Your task to perform on an android device: Do I have any events tomorrow? Image 0: 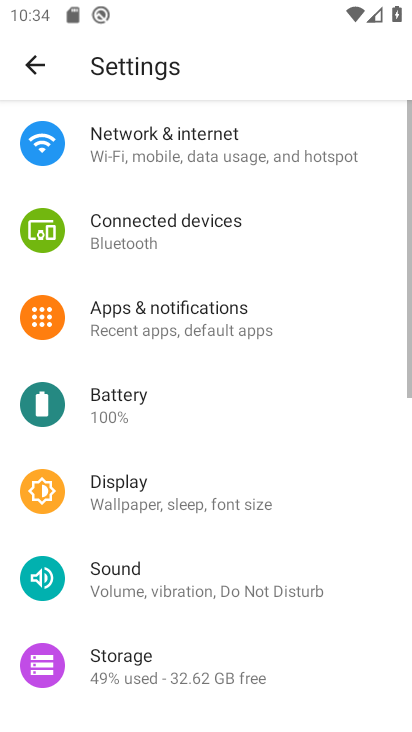
Step 0: press home button
Your task to perform on an android device: Do I have any events tomorrow? Image 1: 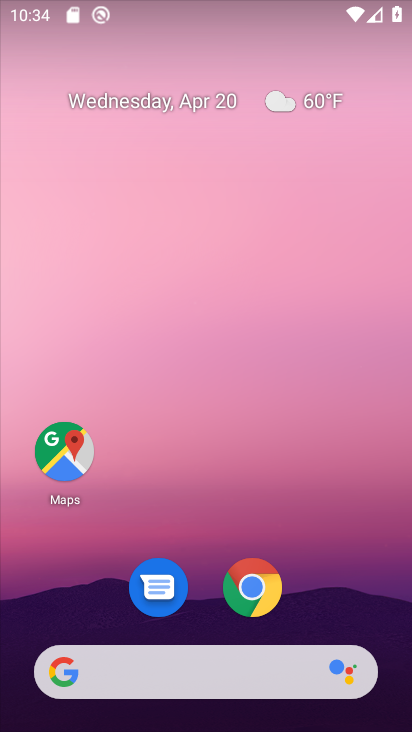
Step 1: drag from (205, 604) to (260, 76)
Your task to perform on an android device: Do I have any events tomorrow? Image 2: 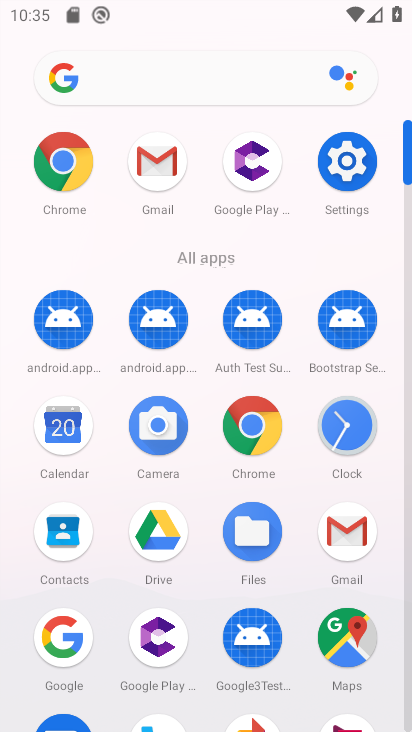
Step 2: click (61, 423)
Your task to perform on an android device: Do I have any events tomorrow? Image 3: 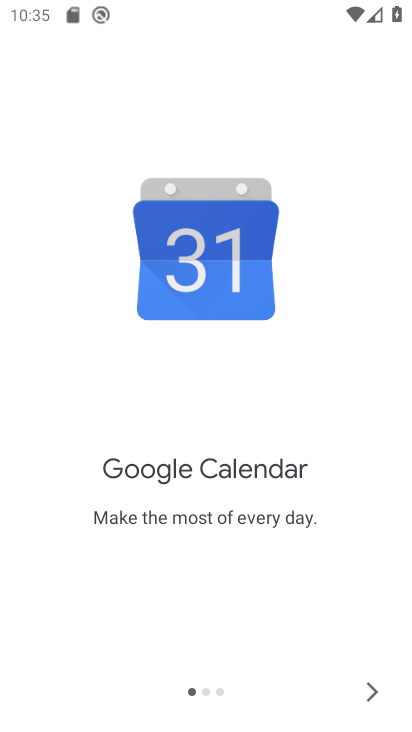
Step 3: click (363, 683)
Your task to perform on an android device: Do I have any events tomorrow? Image 4: 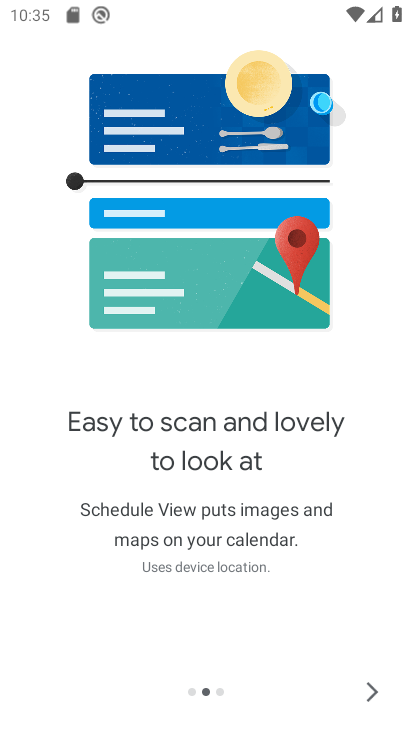
Step 4: click (363, 683)
Your task to perform on an android device: Do I have any events tomorrow? Image 5: 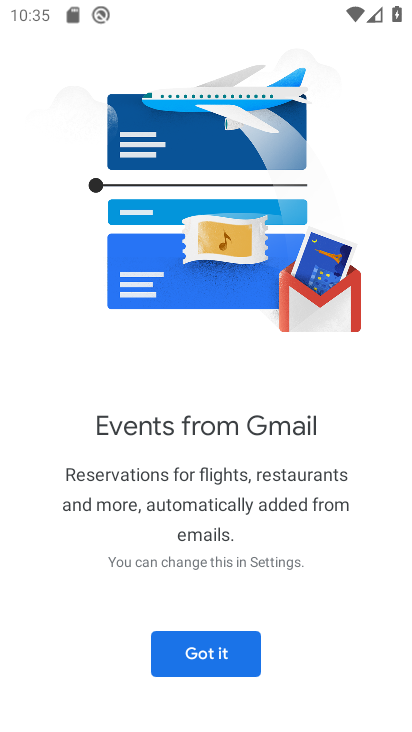
Step 5: click (205, 652)
Your task to perform on an android device: Do I have any events tomorrow? Image 6: 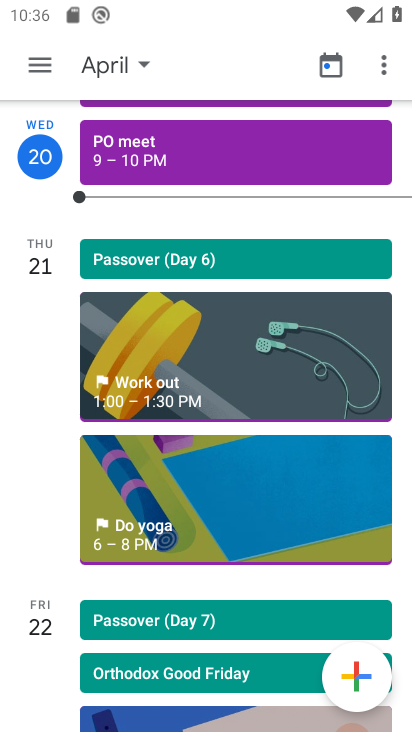
Step 6: click (34, 62)
Your task to perform on an android device: Do I have any events tomorrow? Image 7: 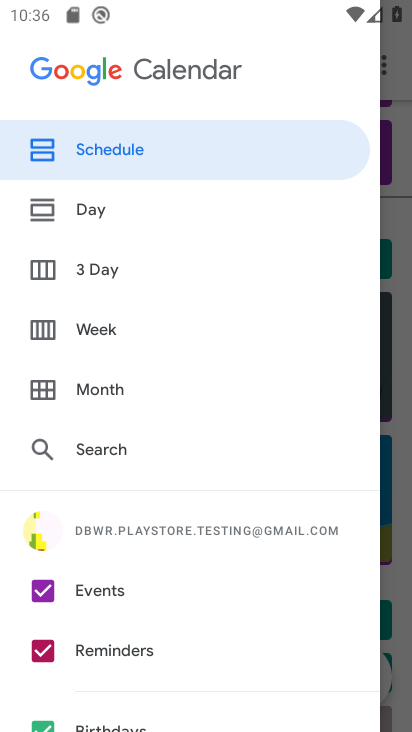
Step 7: click (40, 647)
Your task to perform on an android device: Do I have any events tomorrow? Image 8: 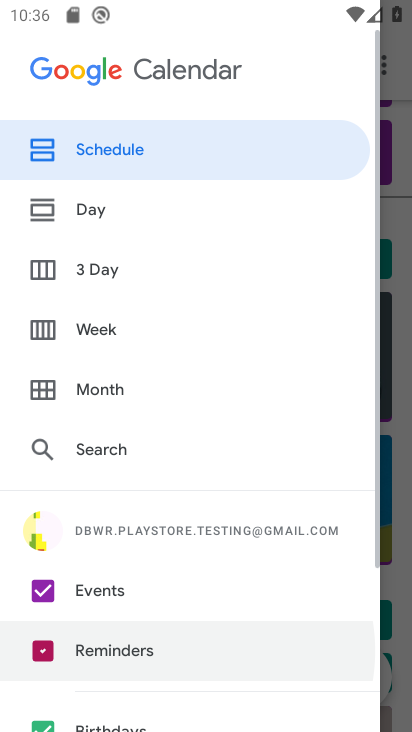
Step 8: drag from (130, 697) to (180, 374)
Your task to perform on an android device: Do I have any events tomorrow? Image 9: 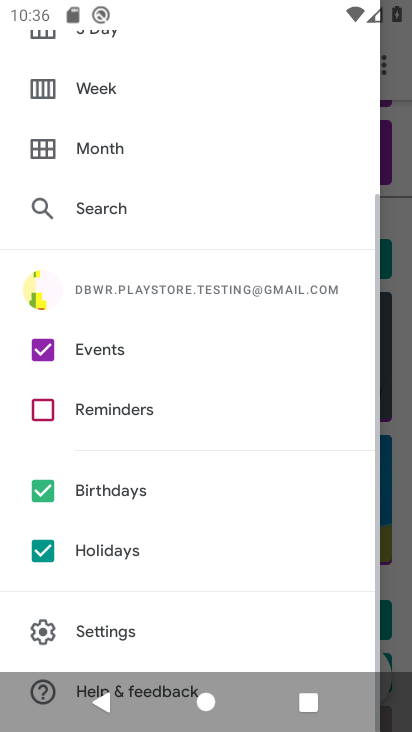
Step 9: click (44, 487)
Your task to perform on an android device: Do I have any events tomorrow? Image 10: 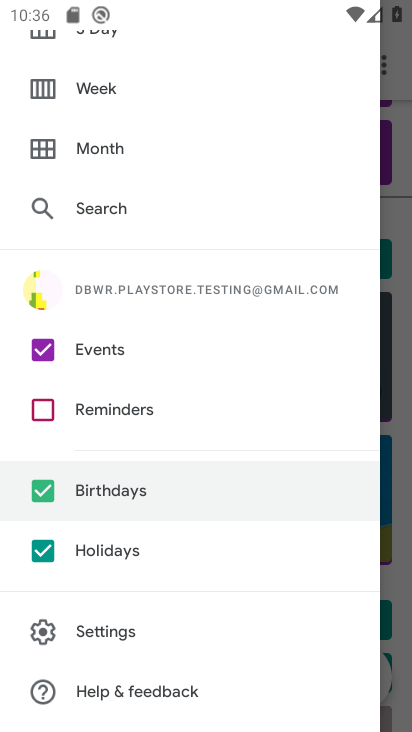
Step 10: click (41, 547)
Your task to perform on an android device: Do I have any events tomorrow? Image 11: 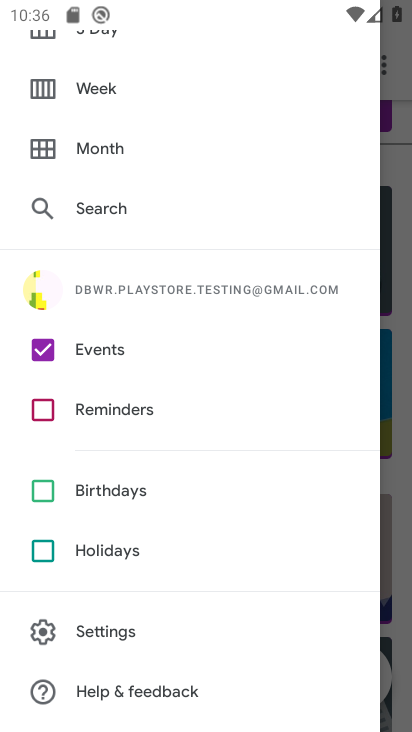
Step 11: drag from (137, 224) to (164, 702)
Your task to perform on an android device: Do I have any events tomorrow? Image 12: 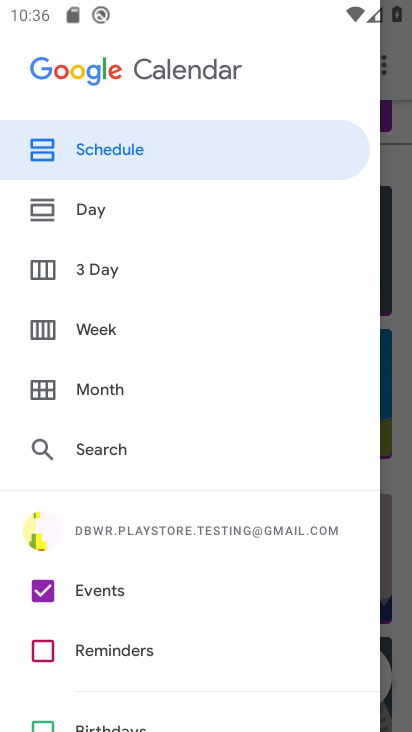
Step 12: click (62, 205)
Your task to perform on an android device: Do I have any events tomorrow? Image 13: 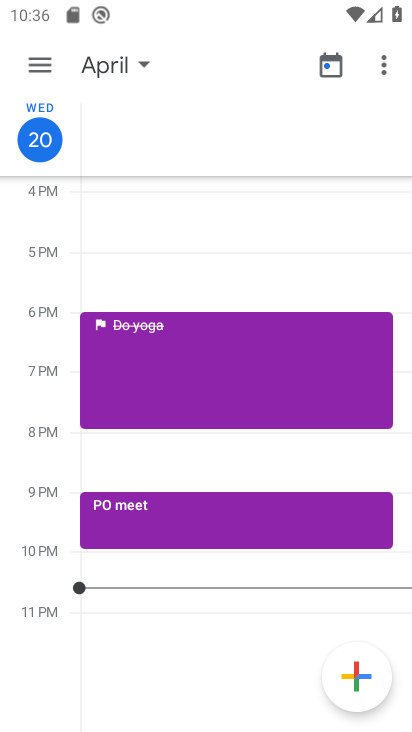
Step 13: click (58, 150)
Your task to perform on an android device: Do I have any events tomorrow? Image 14: 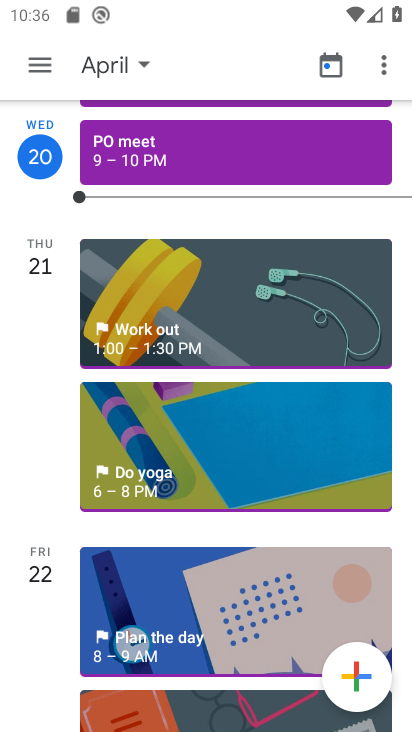
Step 14: click (45, 346)
Your task to perform on an android device: Do I have any events tomorrow? Image 15: 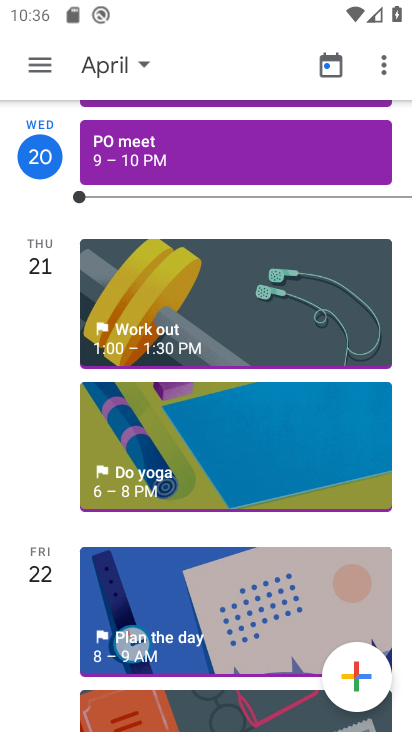
Step 15: click (56, 271)
Your task to perform on an android device: Do I have any events tomorrow? Image 16: 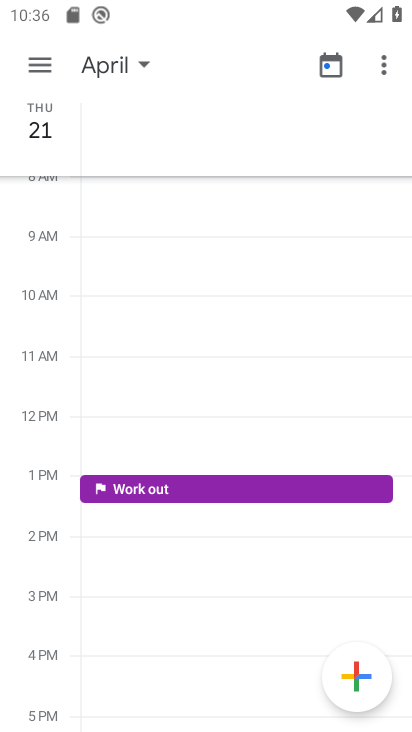
Step 16: task complete